Your task to perform on an android device: turn on javascript in the chrome app Image 0: 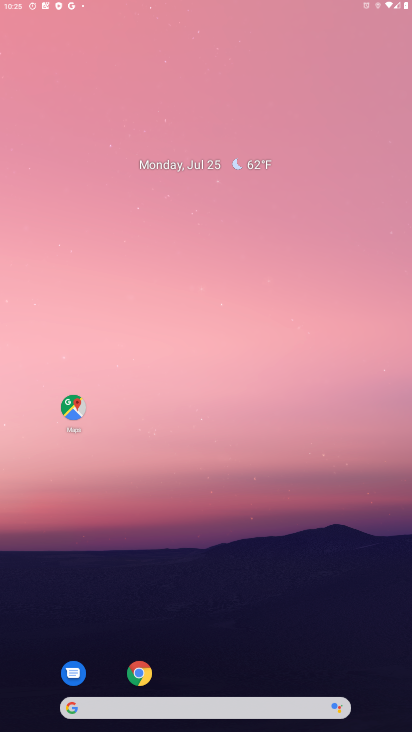
Step 0: drag from (223, 424) to (275, 234)
Your task to perform on an android device: turn on javascript in the chrome app Image 1: 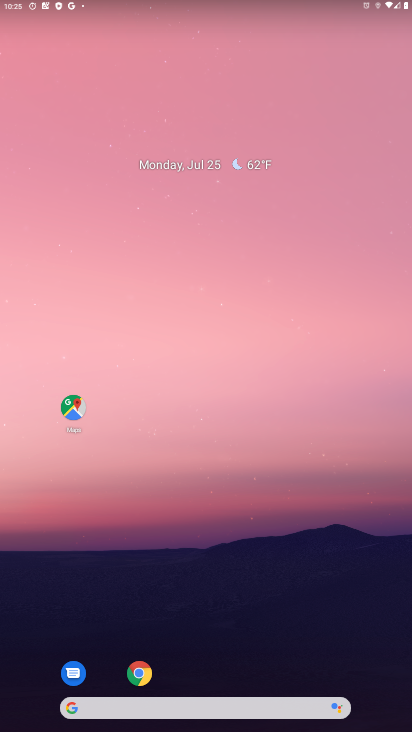
Step 1: drag from (175, 660) to (208, 25)
Your task to perform on an android device: turn on javascript in the chrome app Image 2: 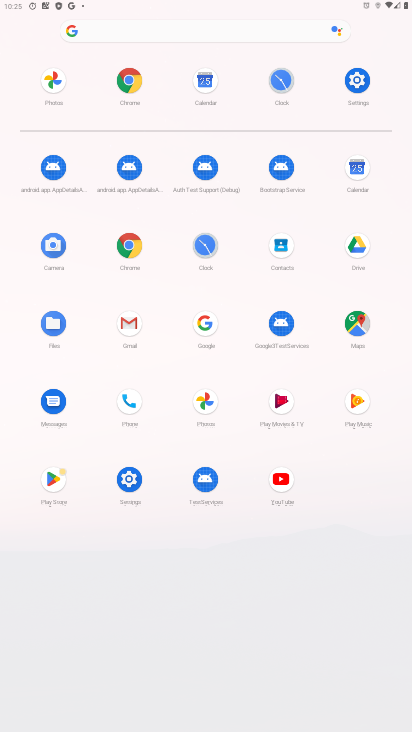
Step 2: click (130, 244)
Your task to perform on an android device: turn on javascript in the chrome app Image 3: 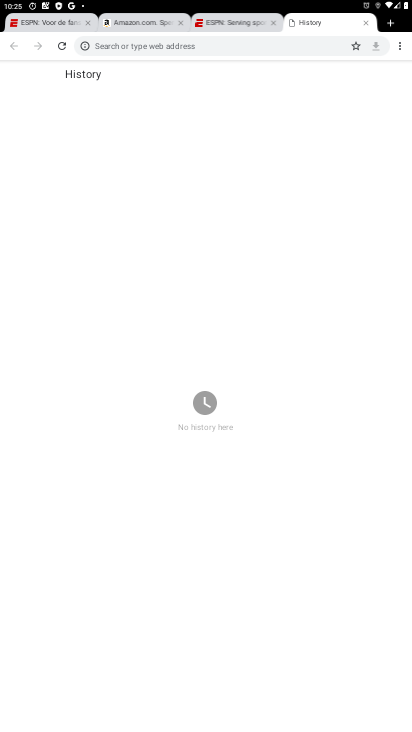
Step 3: drag from (392, 47) to (324, 211)
Your task to perform on an android device: turn on javascript in the chrome app Image 4: 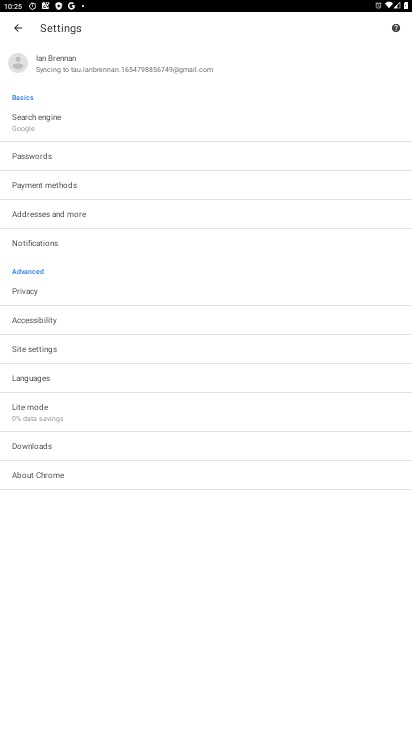
Step 4: drag from (201, 557) to (215, 272)
Your task to perform on an android device: turn on javascript in the chrome app Image 5: 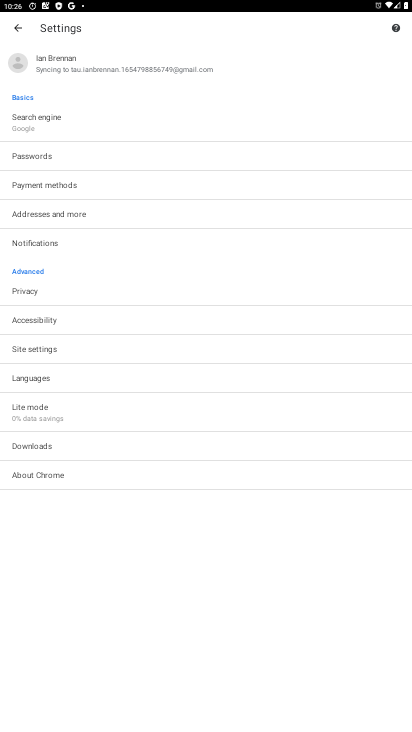
Step 5: click (40, 356)
Your task to perform on an android device: turn on javascript in the chrome app Image 6: 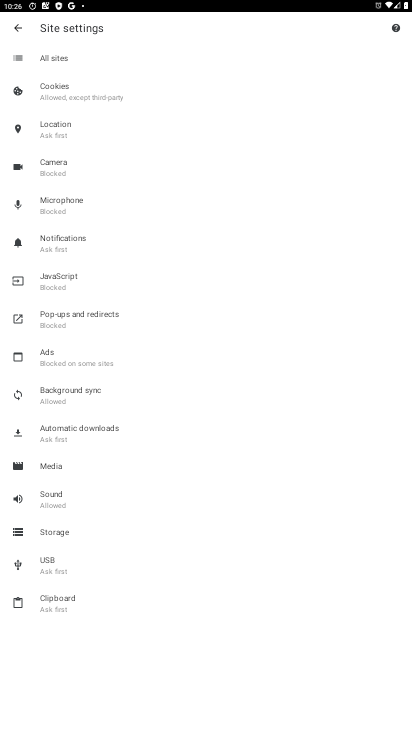
Step 6: click (73, 274)
Your task to perform on an android device: turn on javascript in the chrome app Image 7: 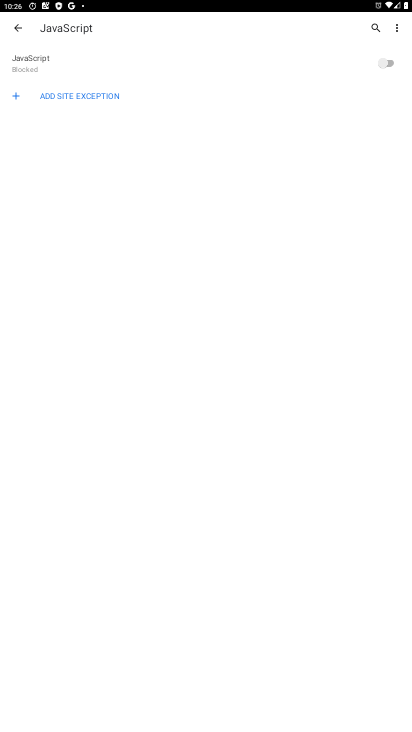
Step 7: click (385, 63)
Your task to perform on an android device: turn on javascript in the chrome app Image 8: 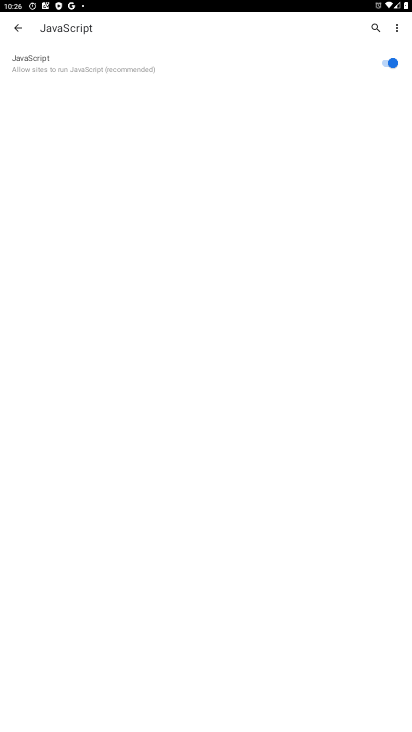
Step 8: task complete